Your task to perform on an android device: turn on priority inbox in the gmail app Image 0: 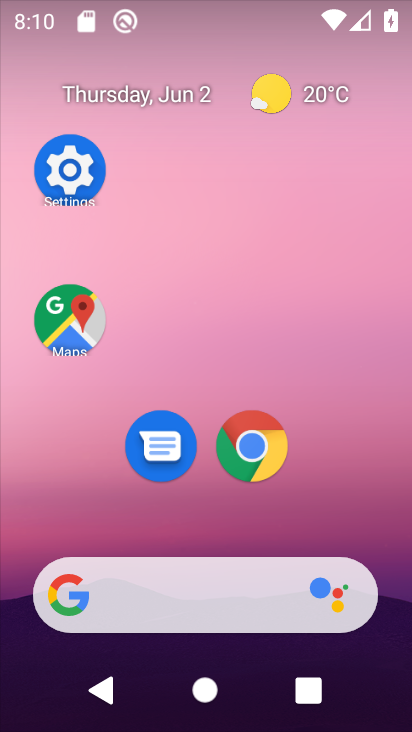
Step 0: drag from (245, 524) to (288, 46)
Your task to perform on an android device: turn on priority inbox in the gmail app Image 1: 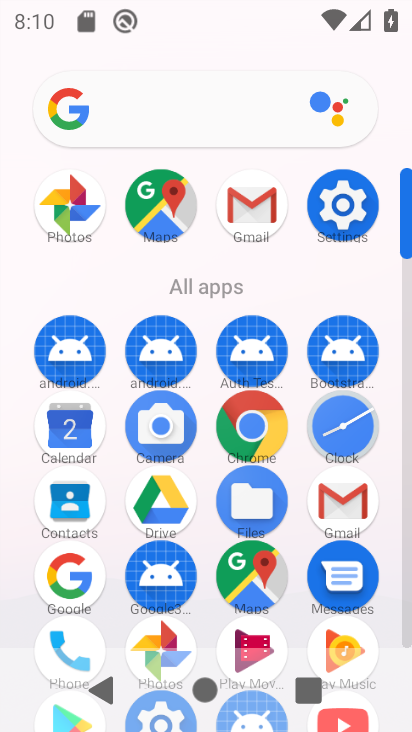
Step 1: drag from (252, 199) to (160, 272)
Your task to perform on an android device: turn on priority inbox in the gmail app Image 2: 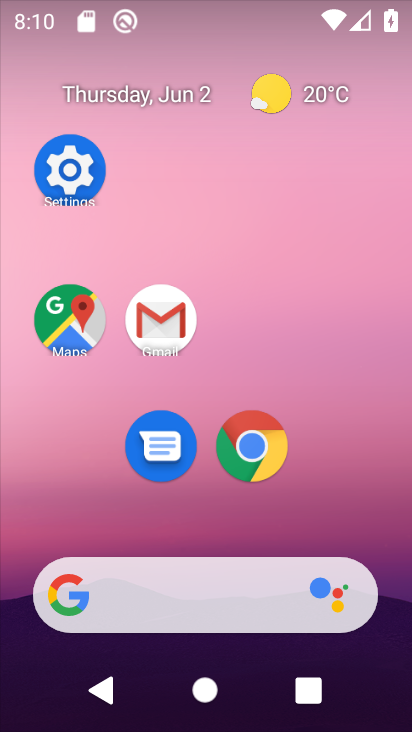
Step 2: click (155, 319)
Your task to perform on an android device: turn on priority inbox in the gmail app Image 3: 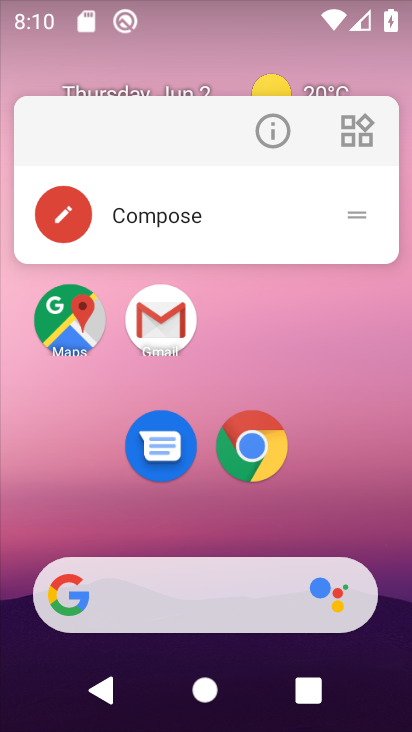
Step 3: click (166, 326)
Your task to perform on an android device: turn on priority inbox in the gmail app Image 4: 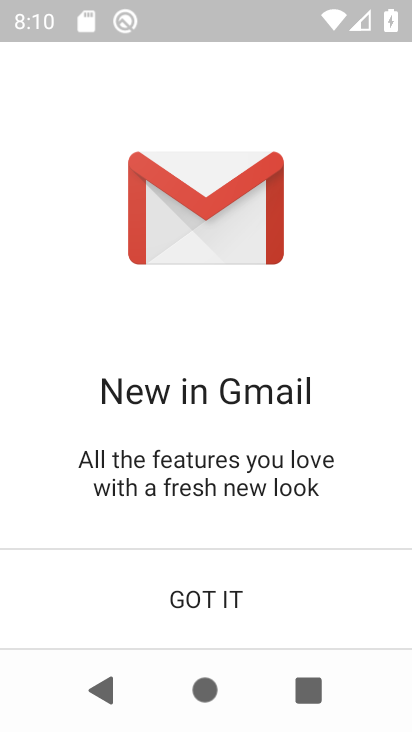
Step 4: click (191, 579)
Your task to perform on an android device: turn on priority inbox in the gmail app Image 5: 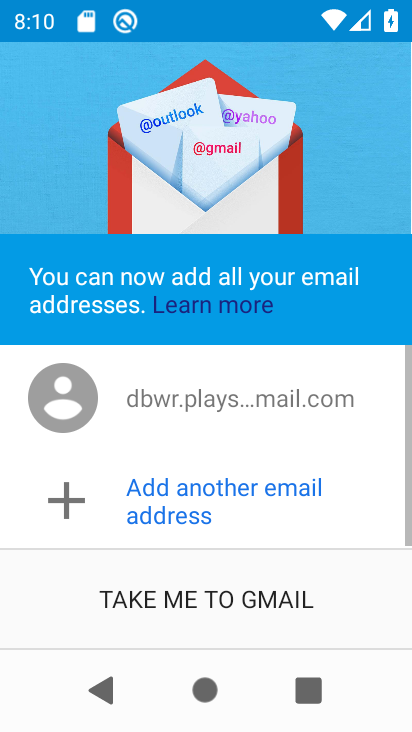
Step 5: click (191, 579)
Your task to perform on an android device: turn on priority inbox in the gmail app Image 6: 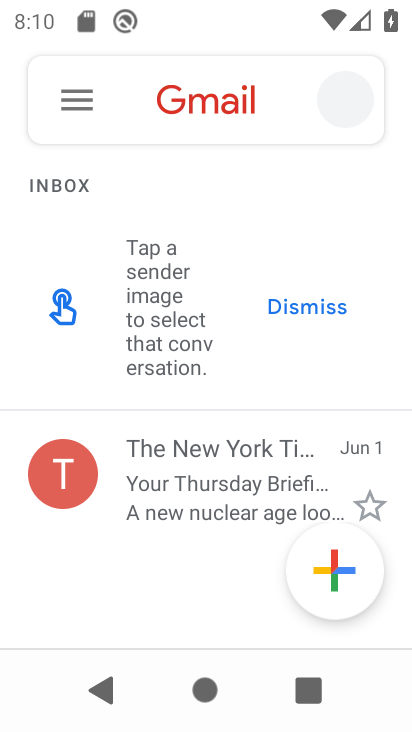
Step 6: click (64, 104)
Your task to perform on an android device: turn on priority inbox in the gmail app Image 7: 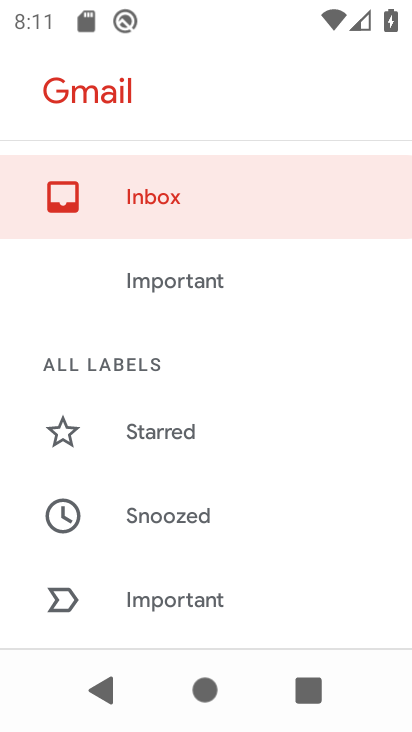
Step 7: drag from (197, 516) to (216, 134)
Your task to perform on an android device: turn on priority inbox in the gmail app Image 8: 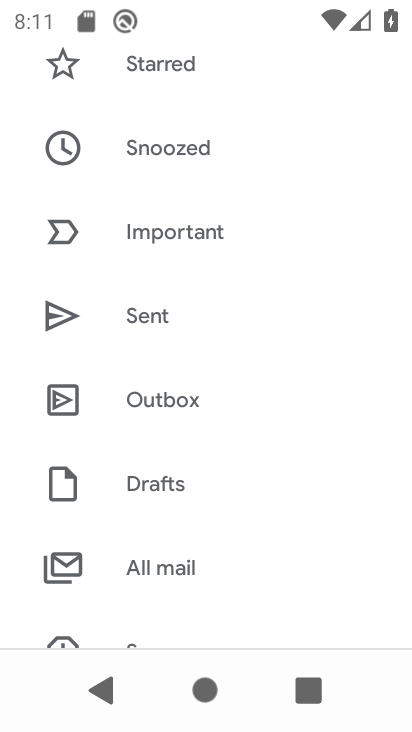
Step 8: drag from (206, 537) to (170, 129)
Your task to perform on an android device: turn on priority inbox in the gmail app Image 9: 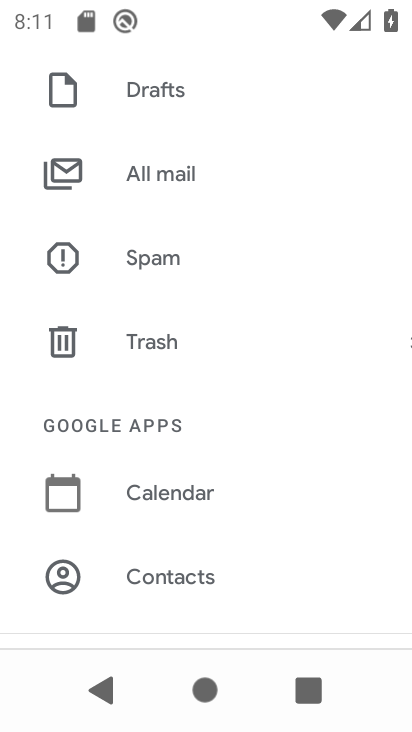
Step 9: drag from (164, 592) to (179, 136)
Your task to perform on an android device: turn on priority inbox in the gmail app Image 10: 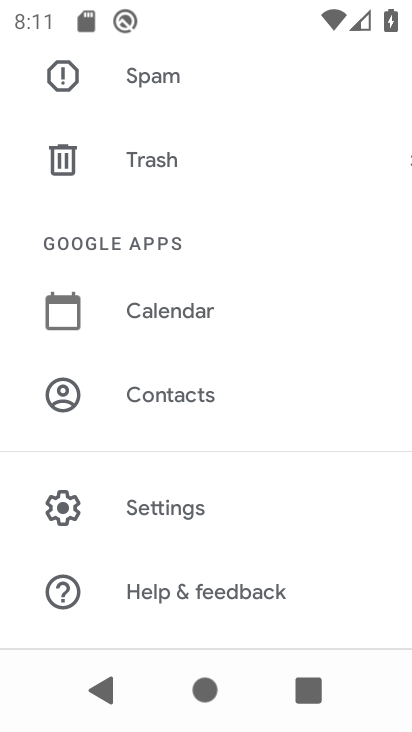
Step 10: click (183, 503)
Your task to perform on an android device: turn on priority inbox in the gmail app Image 11: 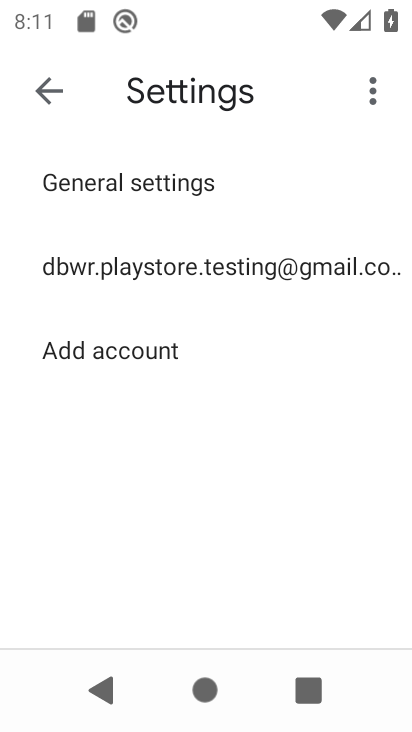
Step 11: click (193, 252)
Your task to perform on an android device: turn on priority inbox in the gmail app Image 12: 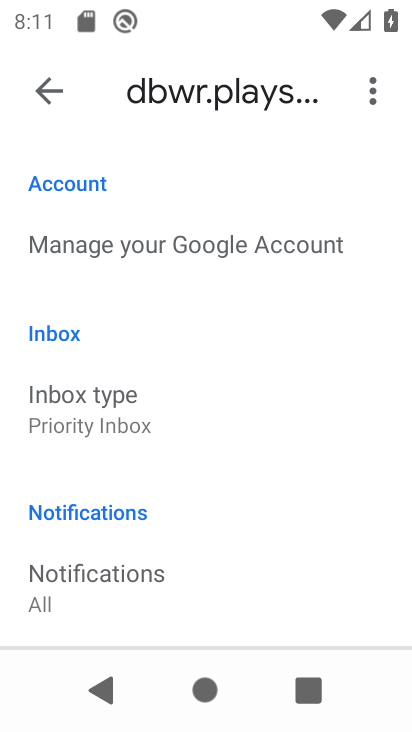
Step 12: task complete